Your task to perform on an android device: all mails in gmail Image 0: 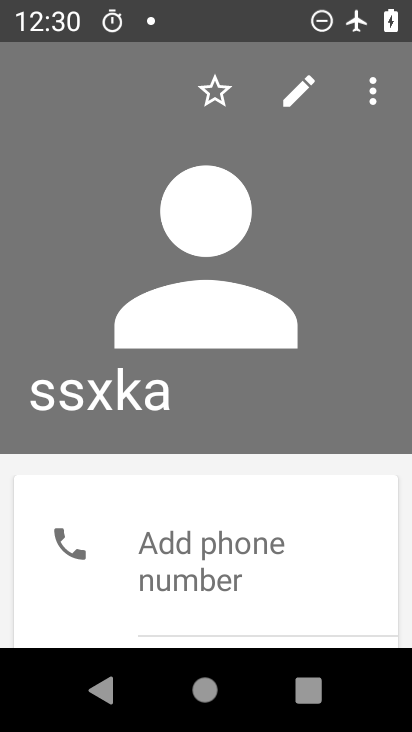
Step 0: press home button
Your task to perform on an android device: all mails in gmail Image 1: 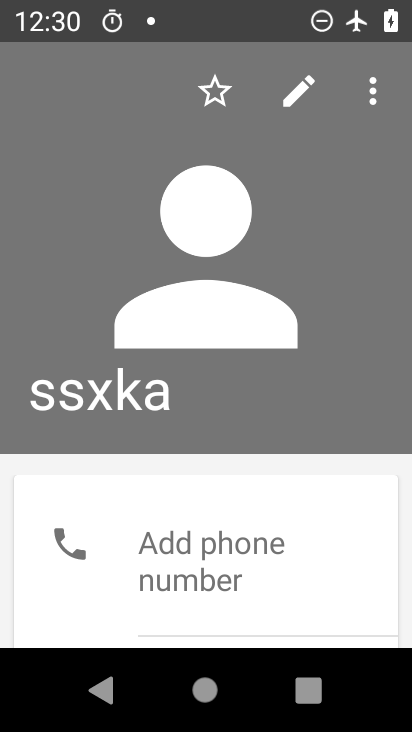
Step 1: drag from (306, 3) to (348, 19)
Your task to perform on an android device: all mails in gmail Image 2: 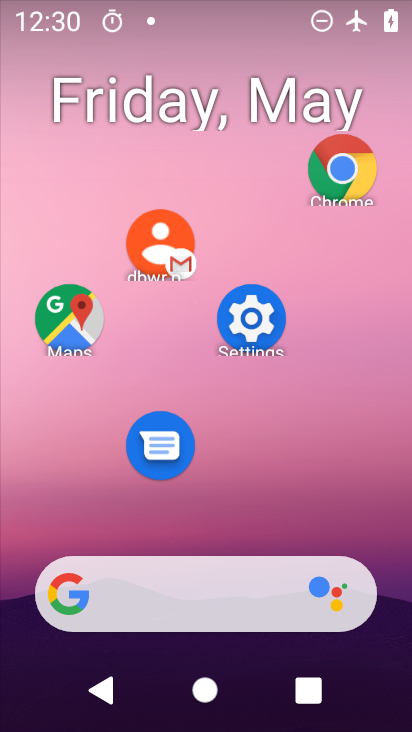
Step 2: drag from (248, 405) to (279, 104)
Your task to perform on an android device: all mails in gmail Image 3: 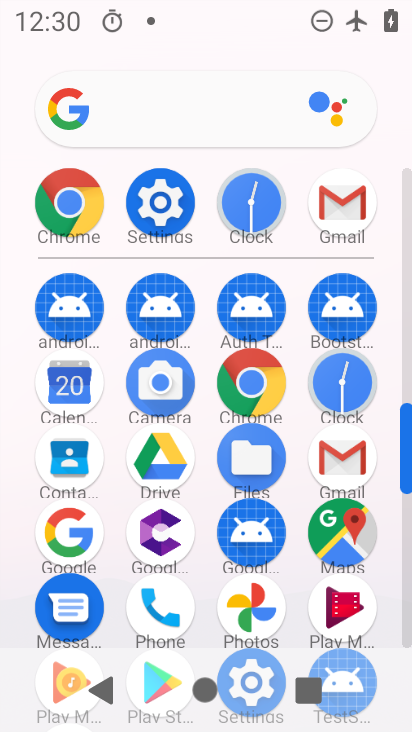
Step 3: click (366, 466)
Your task to perform on an android device: all mails in gmail Image 4: 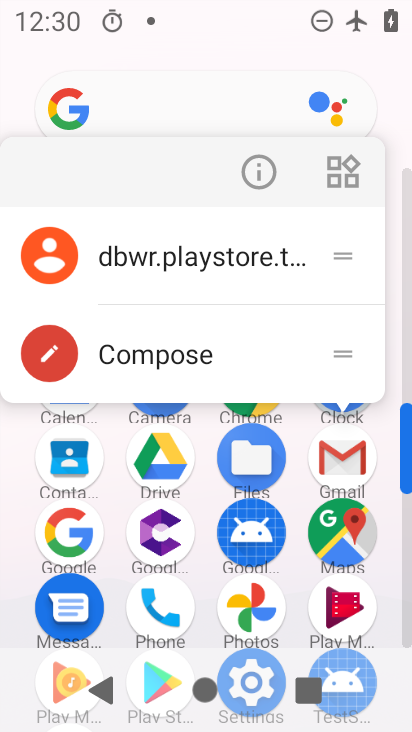
Step 4: click (255, 191)
Your task to perform on an android device: all mails in gmail Image 5: 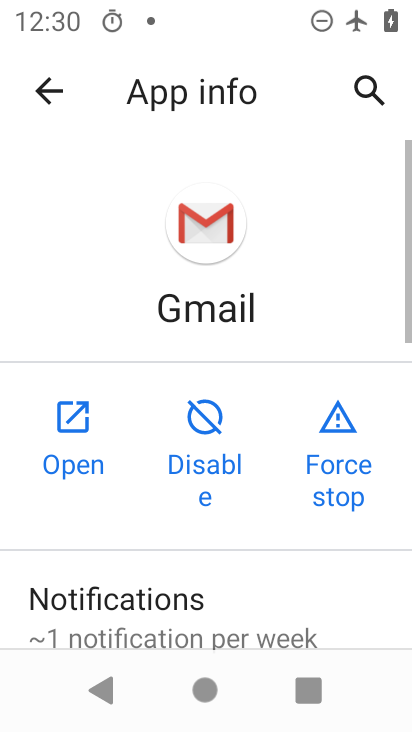
Step 5: click (96, 409)
Your task to perform on an android device: all mails in gmail Image 6: 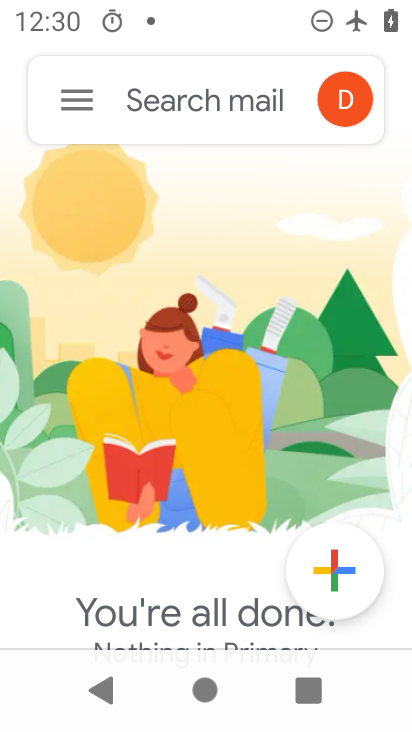
Step 6: drag from (190, 547) to (220, 183)
Your task to perform on an android device: all mails in gmail Image 7: 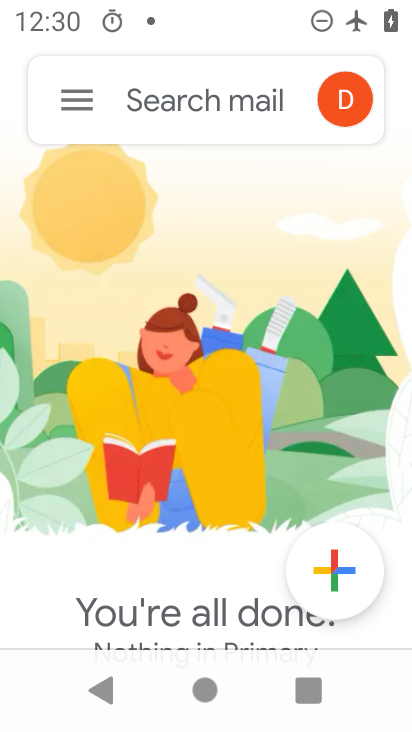
Step 7: drag from (175, 565) to (195, 261)
Your task to perform on an android device: all mails in gmail Image 8: 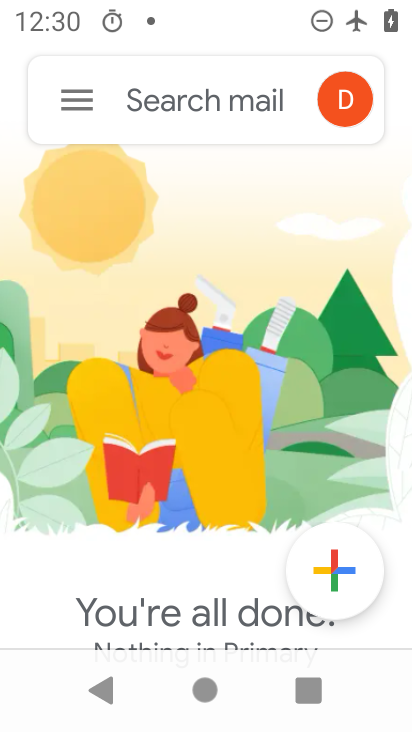
Step 8: click (72, 118)
Your task to perform on an android device: all mails in gmail Image 9: 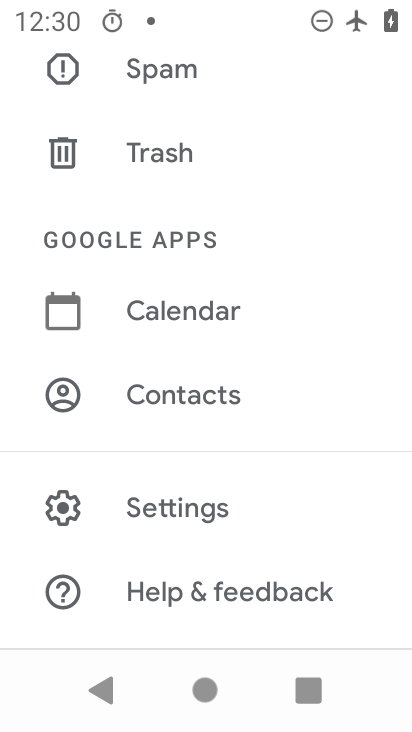
Step 9: drag from (229, 194) to (341, 719)
Your task to perform on an android device: all mails in gmail Image 10: 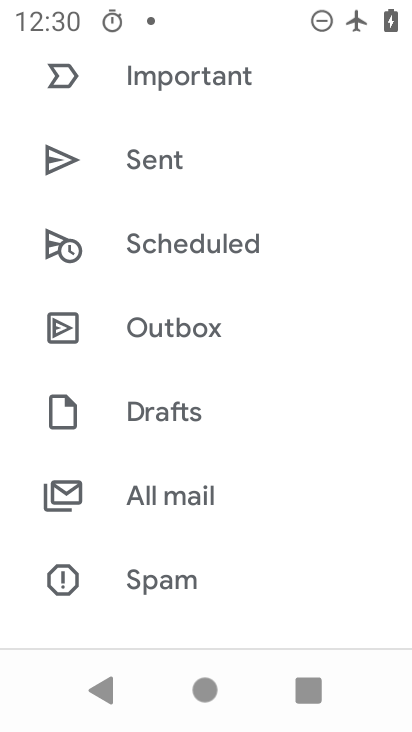
Step 10: click (158, 495)
Your task to perform on an android device: all mails in gmail Image 11: 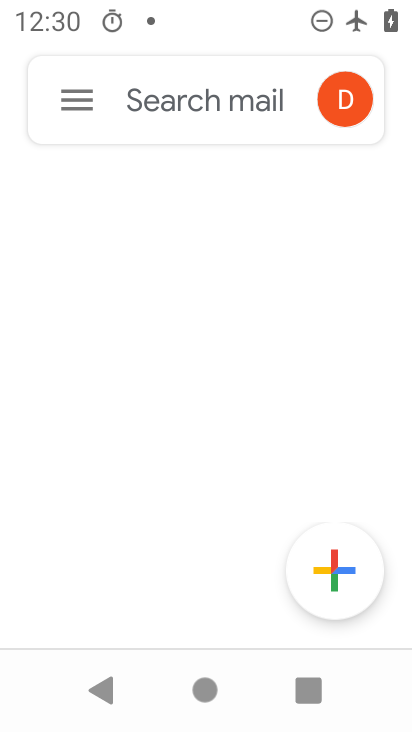
Step 11: task complete